Your task to perform on an android device: toggle wifi Image 0: 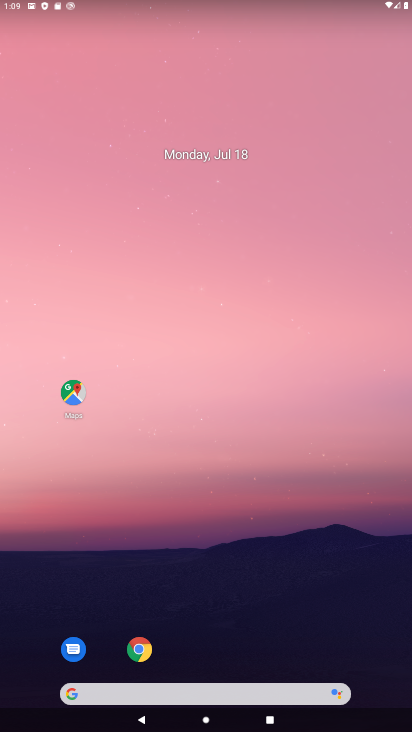
Step 0: press home button
Your task to perform on an android device: toggle wifi Image 1: 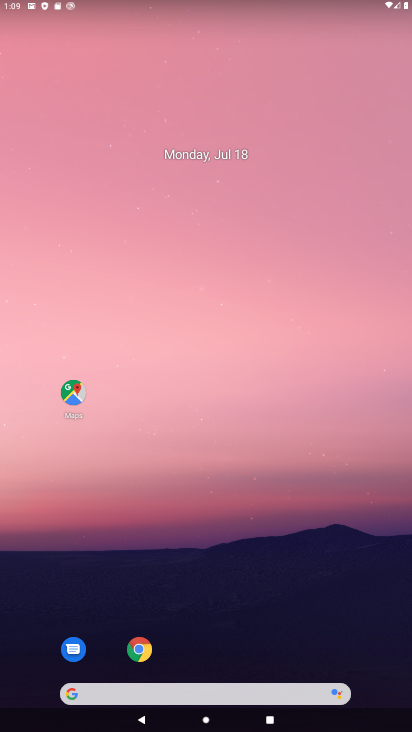
Step 1: drag from (174, 700) to (196, 72)
Your task to perform on an android device: toggle wifi Image 2: 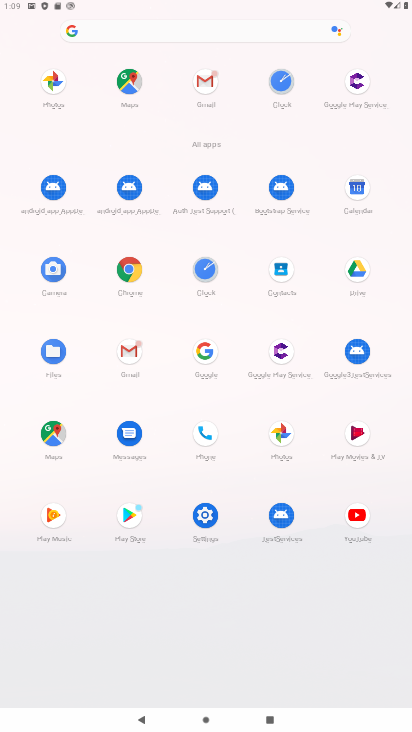
Step 2: click (197, 516)
Your task to perform on an android device: toggle wifi Image 3: 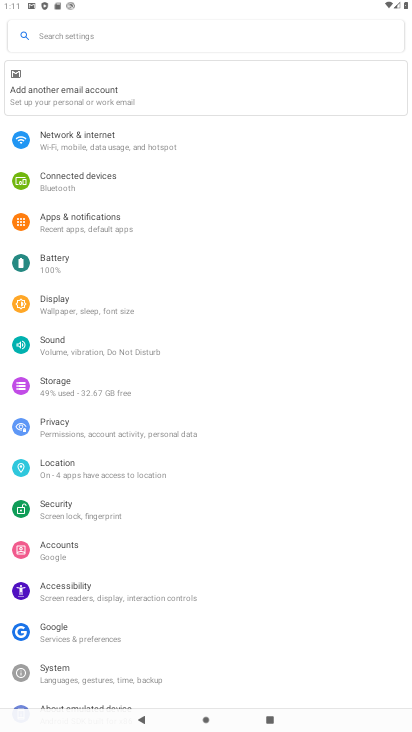
Step 3: click (73, 134)
Your task to perform on an android device: toggle wifi Image 4: 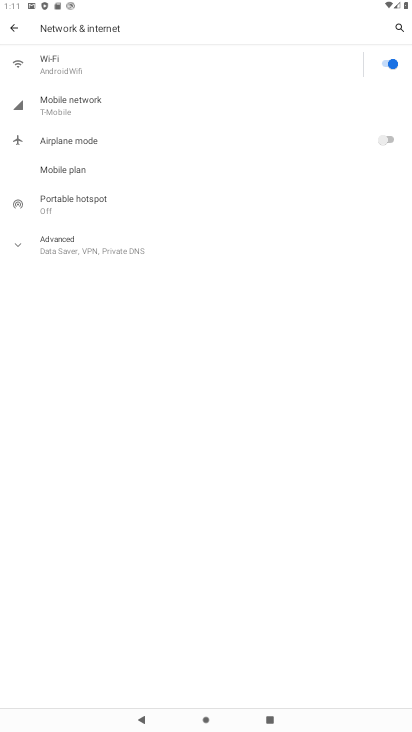
Step 4: click (390, 60)
Your task to perform on an android device: toggle wifi Image 5: 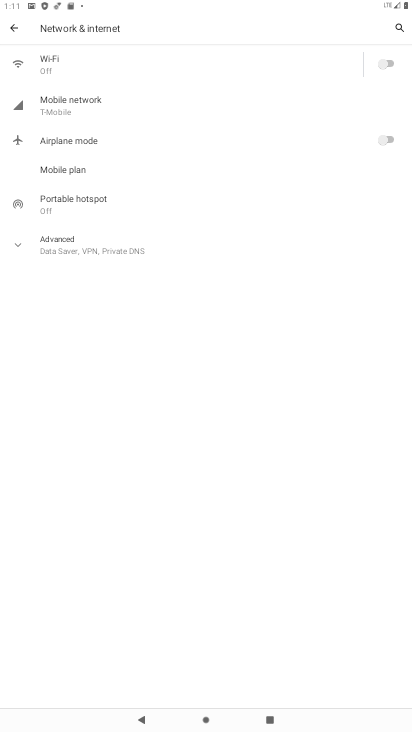
Step 5: task complete